Your task to perform on an android device: check data usage Image 0: 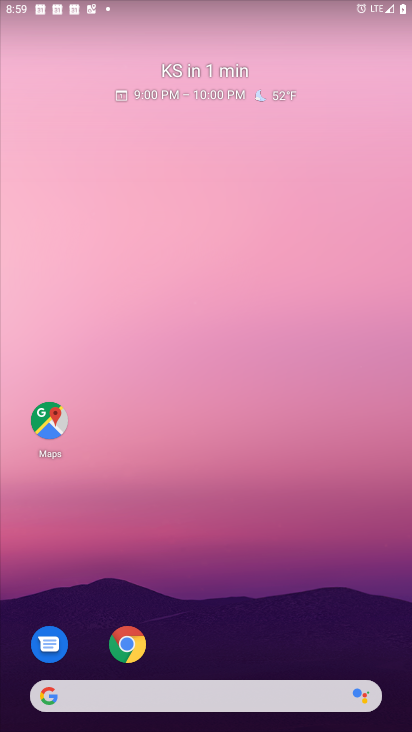
Step 0: drag from (388, 669) to (291, 89)
Your task to perform on an android device: check data usage Image 1: 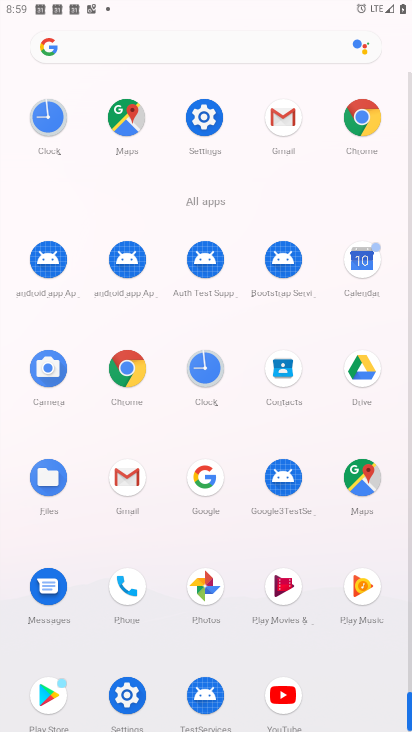
Step 1: click (127, 697)
Your task to perform on an android device: check data usage Image 2: 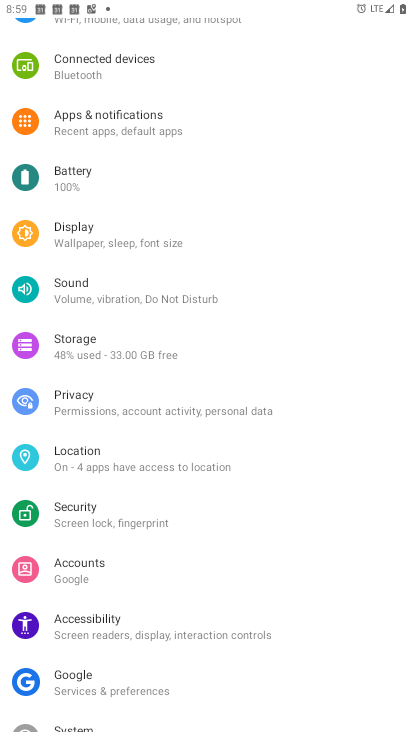
Step 2: drag from (343, 98) to (334, 314)
Your task to perform on an android device: check data usage Image 3: 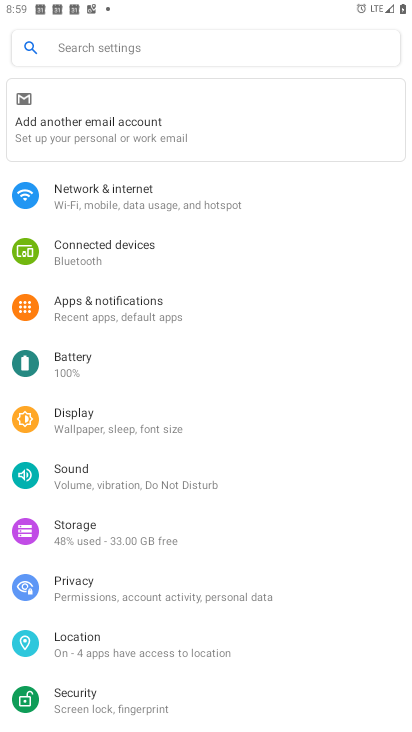
Step 3: click (79, 191)
Your task to perform on an android device: check data usage Image 4: 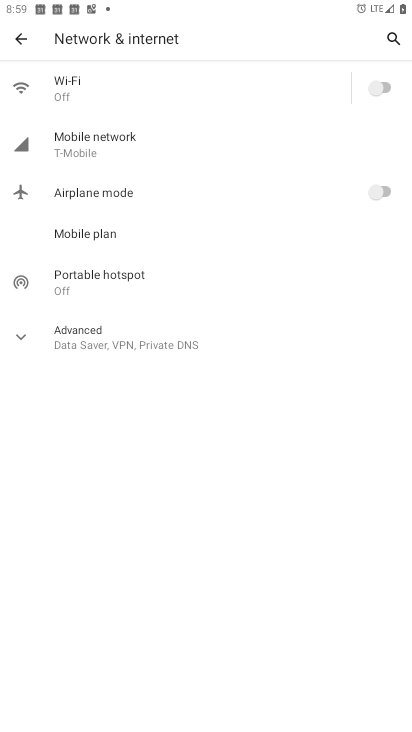
Step 4: click (84, 148)
Your task to perform on an android device: check data usage Image 5: 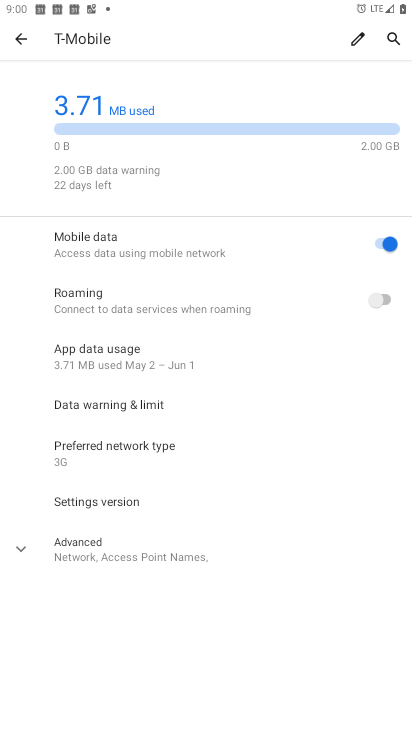
Step 5: task complete